Your task to perform on an android device: allow notifications from all sites in the chrome app Image 0: 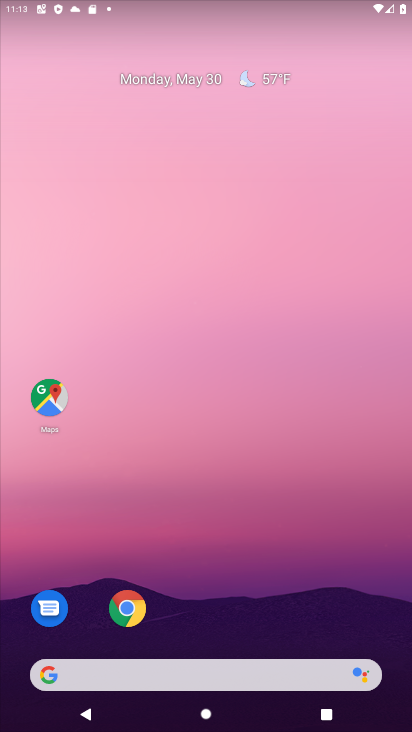
Step 0: drag from (252, 507) to (217, 27)
Your task to perform on an android device: allow notifications from all sites in the chrome app Image 1: 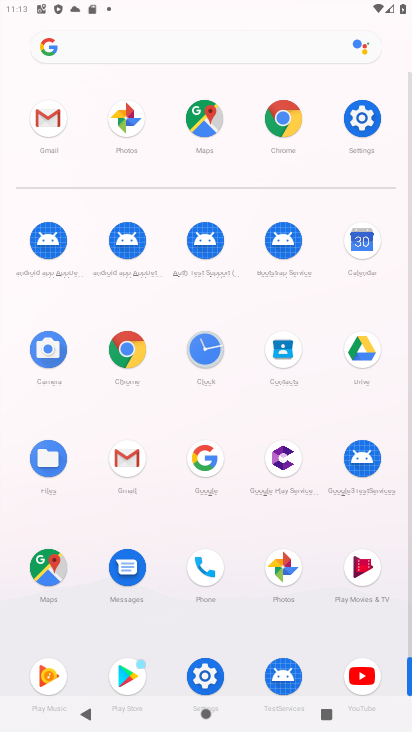
Step 1: click (128, 344)
Your task to perform on an android device: allow notifications from all sites in the chrome app Image 2: 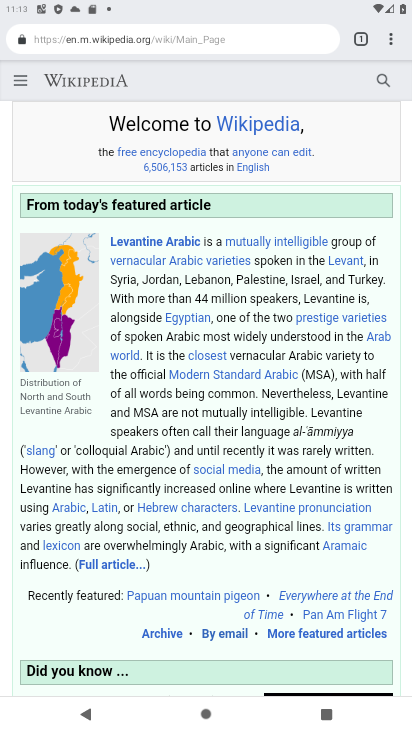
Step 2: drag from (391, 43) to (283, 498)
Your task to perform on an android device: allow notifications from all sites in the chrome app Image 3: 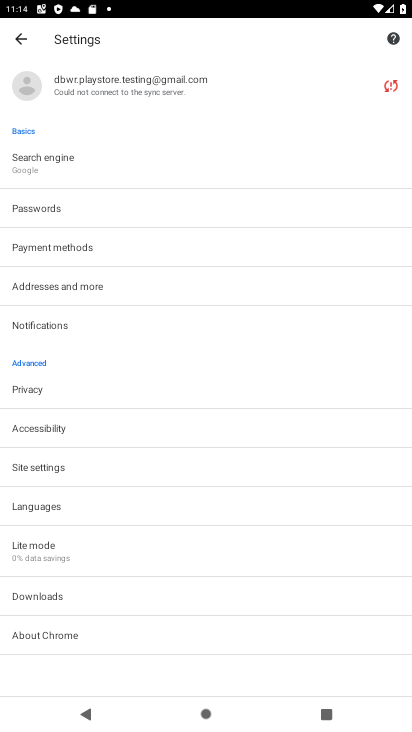
Step 3: drag from (269, 557) to (239, 112)
Your task to perform on an android device: allow notifications from all sites in the chrome app Image 4: 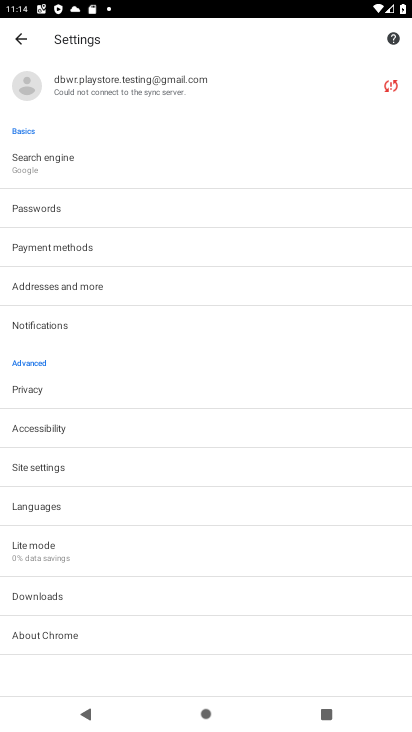
Step 4: click (58, 458)
Your task to perform on an android device: allow notifications from all sites in the chrome app Image 5: 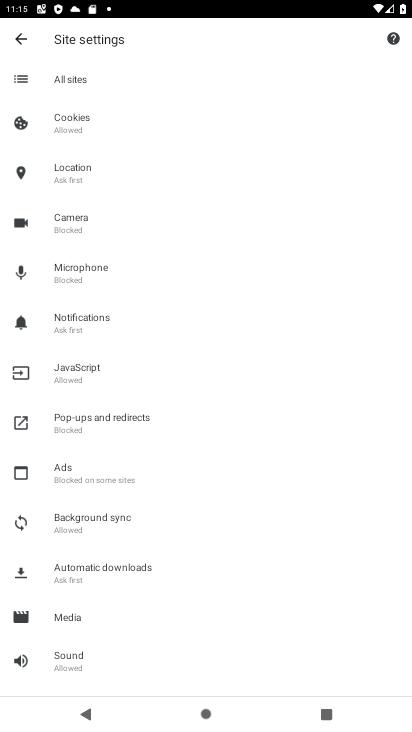
Step 5: click (88, 318)
Your task to perform on an android device: allow notifications from all sites in the chrome app Image 6: 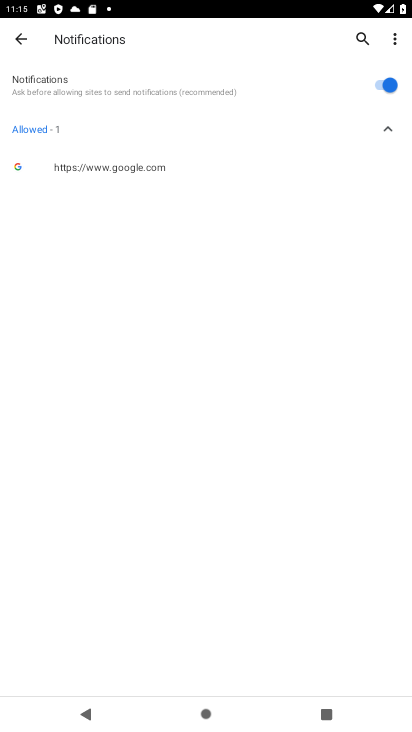
Step 6: task complete